Your task to perform on an android device: read, delete, or share a saved page in the chrome app Image 0: 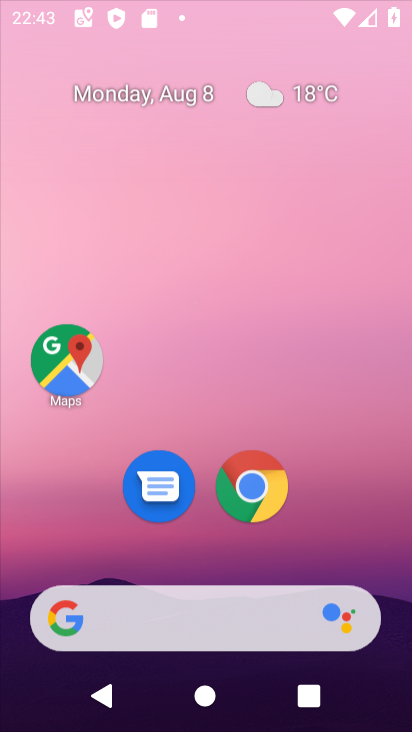
Step 0: drag from (240, 577) to (231, 133)
Your task to perform on an android device: read, delete, or share a saved page in the chrome app Image 1: 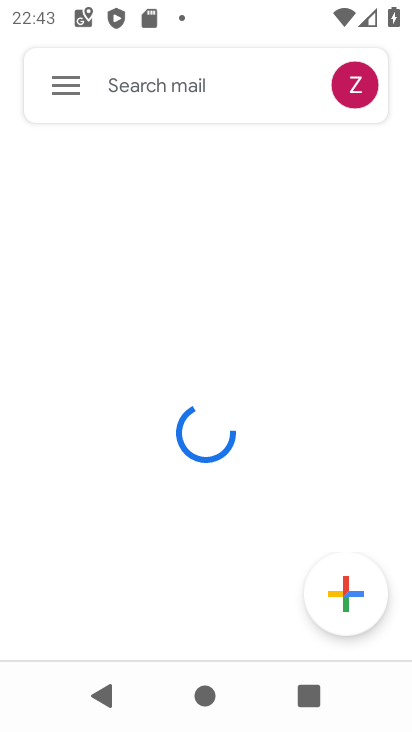
Step 1: press home button
Your task to perform on an android device: read, delete, or share a saved page in the chrome app Image 2: 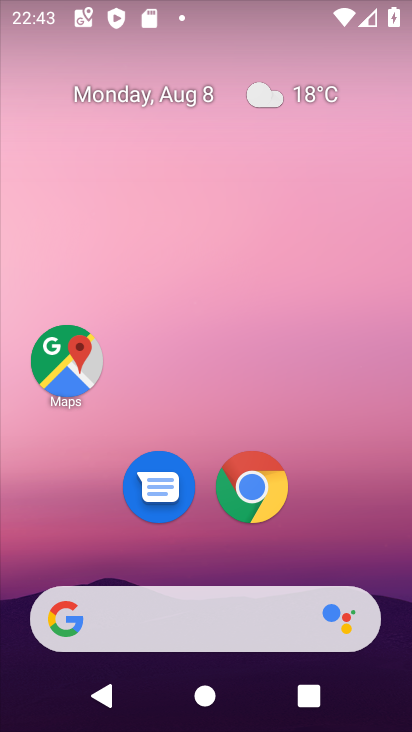
Step 2: drag from (204, 577) to (189, 172)
Your task to perform on an android device: read, delete, or share a saved page in the chrome app Image 3: 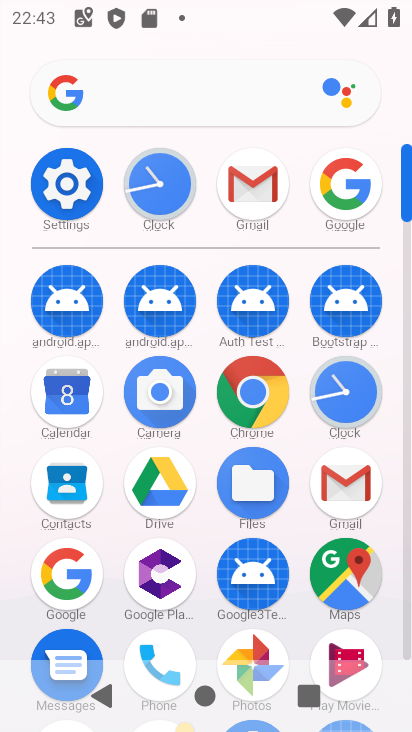
Step 3: click (251, 395)
Your task to perform on an android device: read, delete, or share a saved page in the chrome app Image 4: 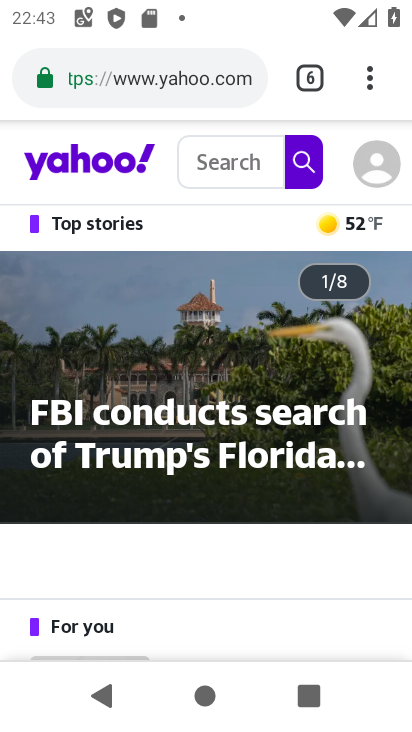
Step 4: drag from (368, 86) to (95, 519)
Your task to perform on an android device: read, delete, or share a saved page in the chrome app Image 5: 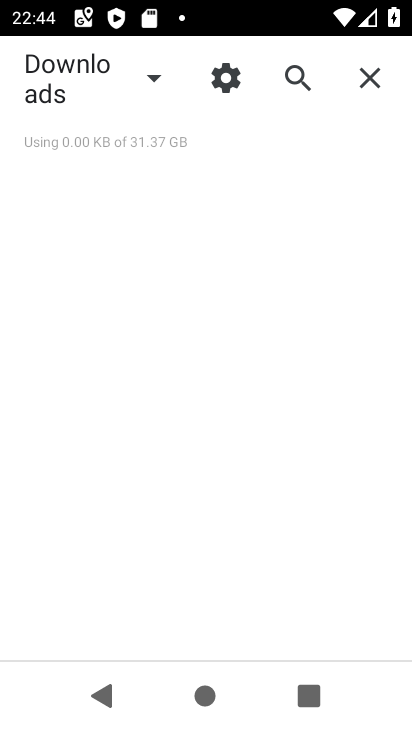
Step 5: click (159, 72)
Your task to perform on an android device: read, delete, or share a saved page in the chrome app Image 6: 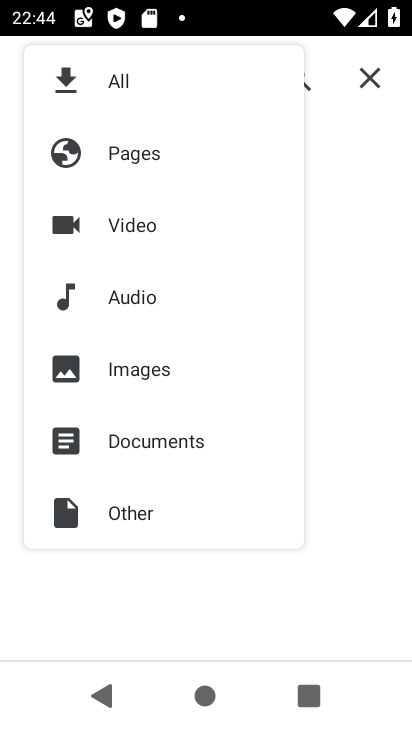
Step 6: click (130, 151)
Your task to perform on an android device: read, delete, or share a saved page in the chrome app Image 7: 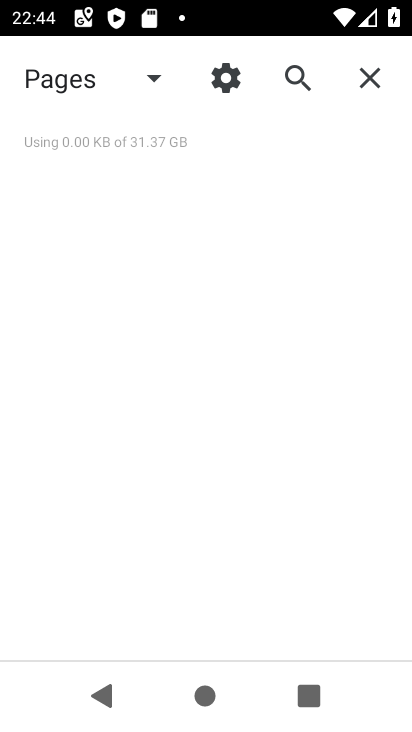
Step 7: task complete